Your task to perform on an android device: open app "McDonald's" (install if not already installed) Image 0: 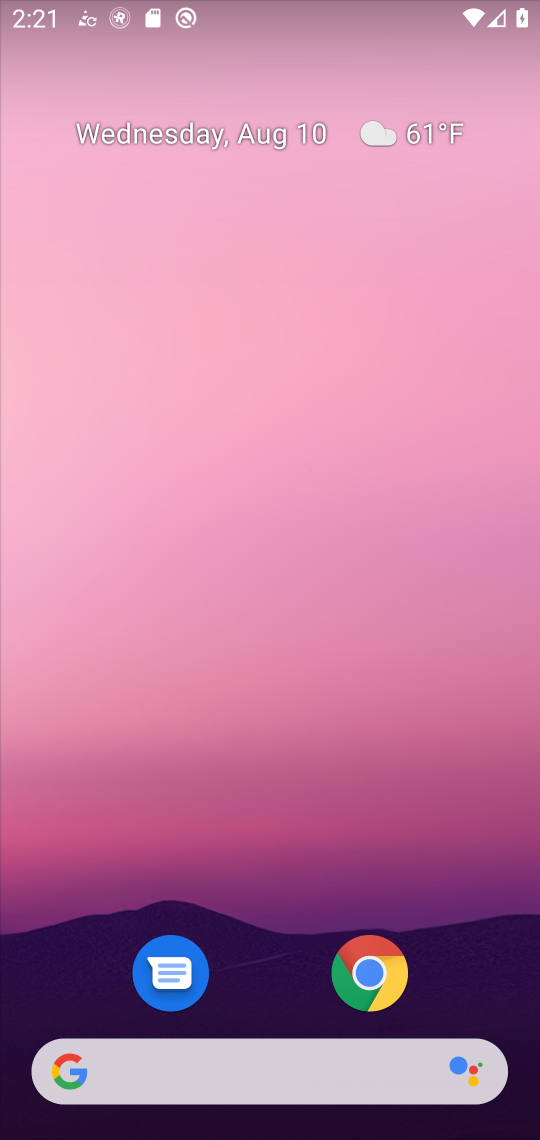
Step 0: drag from (301, 781) to (309, 389)
Your task to perform on an android device: open app "McDonald's" (install if not already installed) Image 1: 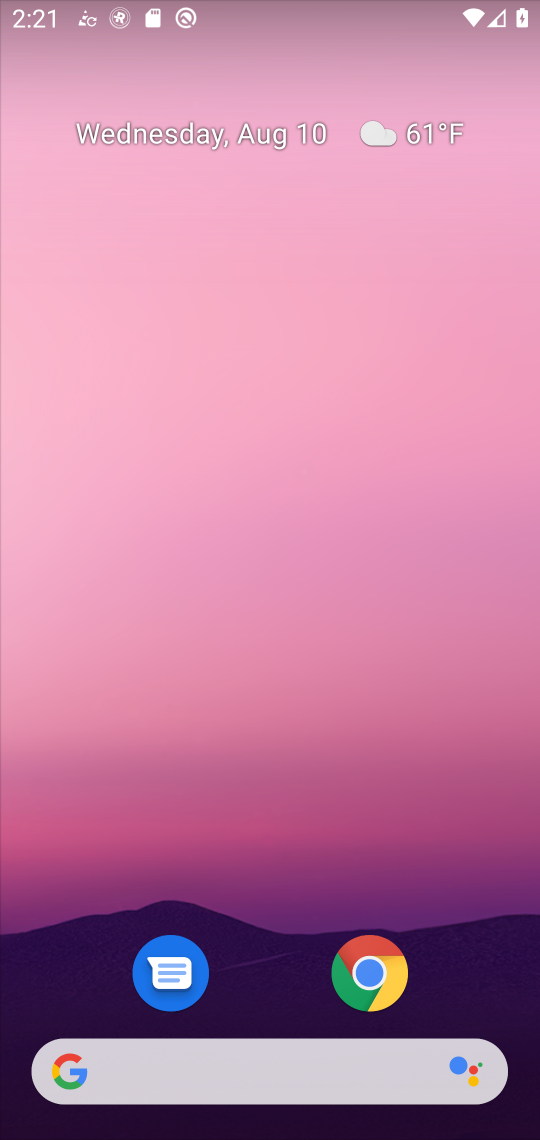
Step 1: drag from (271, 921) to (267, 232)
Your task to perform on an android device: open app "McDonald's" (install if not already installed) Image 2: 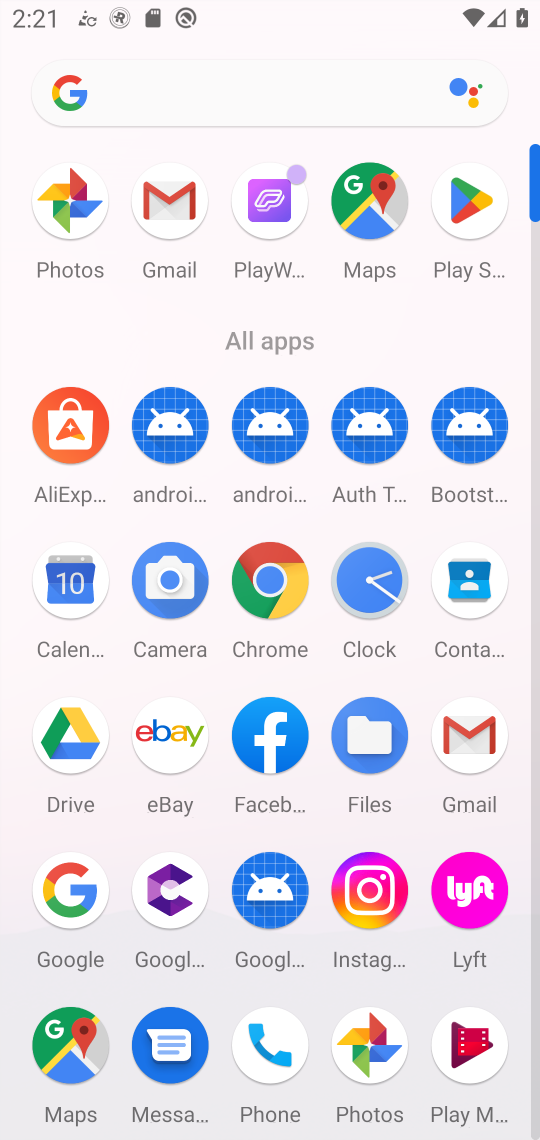
Step 2: click (485, 190)
Your task to perform on an android device: open app "McDonald's" (install if not already installed) Image 3: 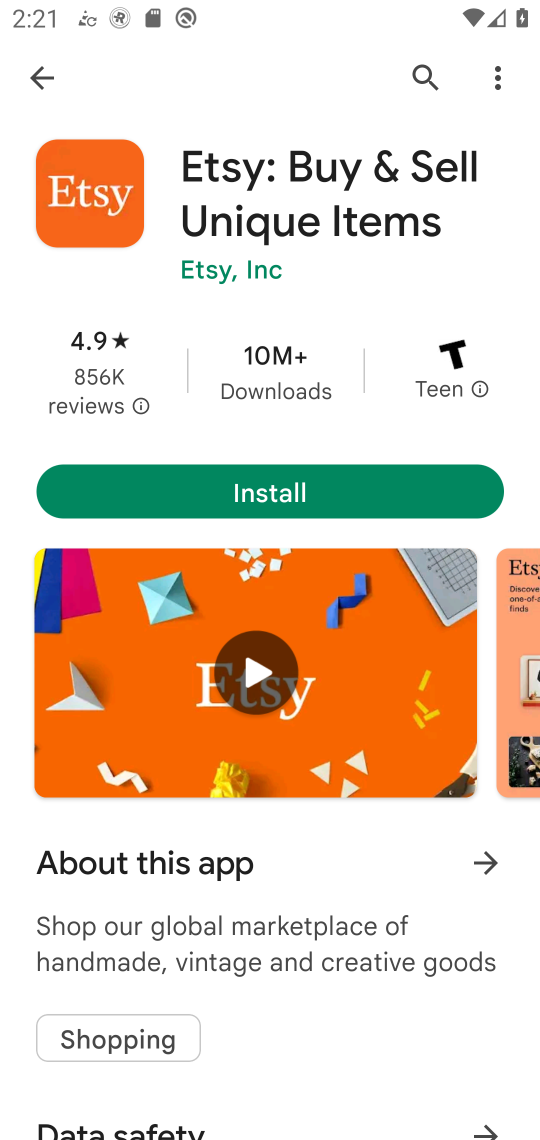
Step 3: click (28, 71)
Your task to perform on an android device: open app "McDonald's" (install if not already installed) Image 4: 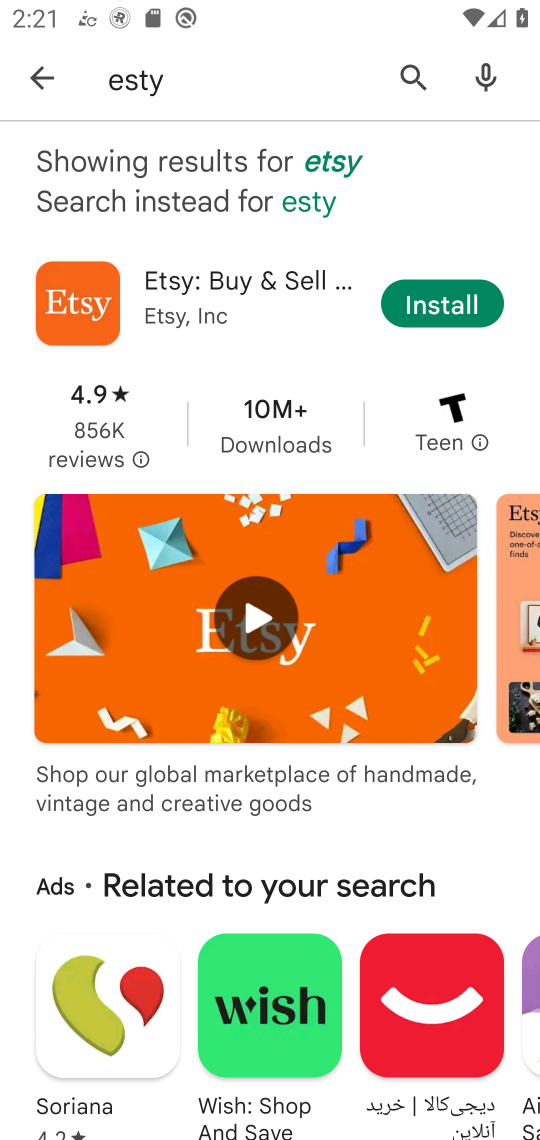
Step 4: click (29, 60)
Your task to perform on an android device: open app "McDonald's" (install if not already installed) Image 5: 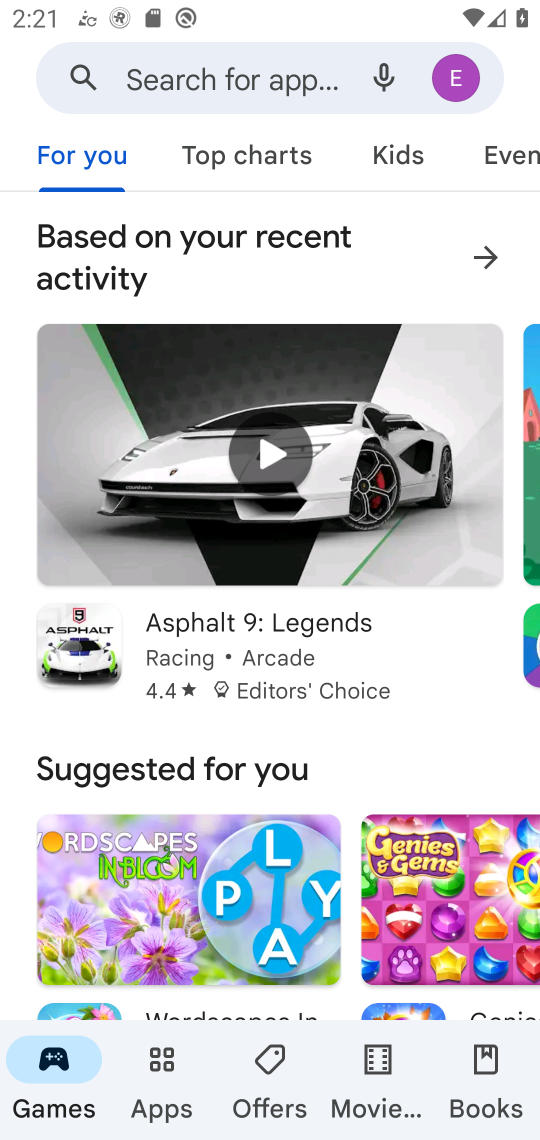
Step 5: click (189, 72)
Your task to perform on an android device: open app "McDonald's" (install if not already installed) Image 6: 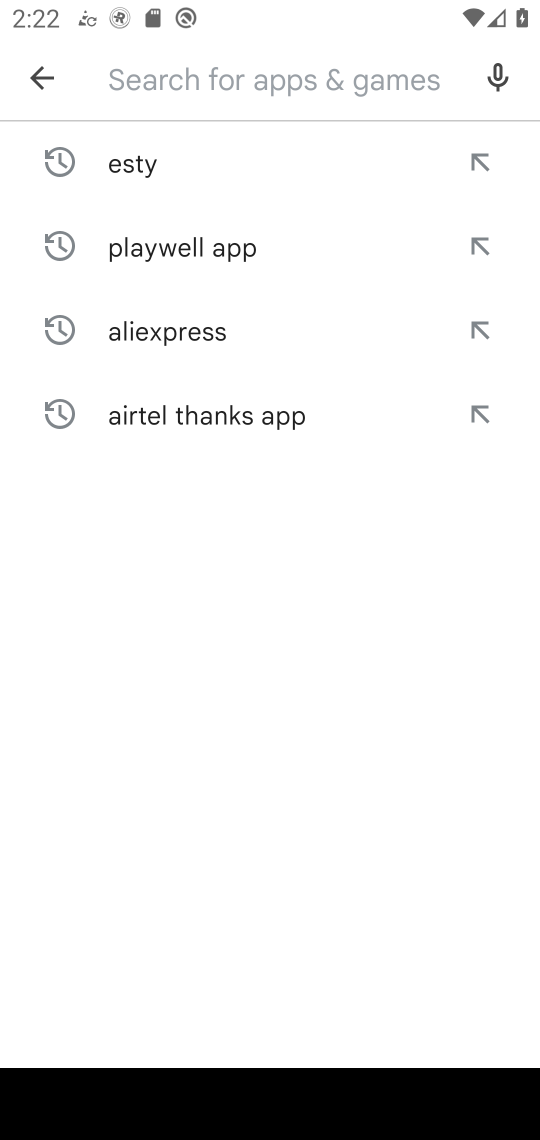
Step 6: type "mcdonald"
Your task to perform on an android device: open app "McDonald's" (install if not already installed) Image 7: 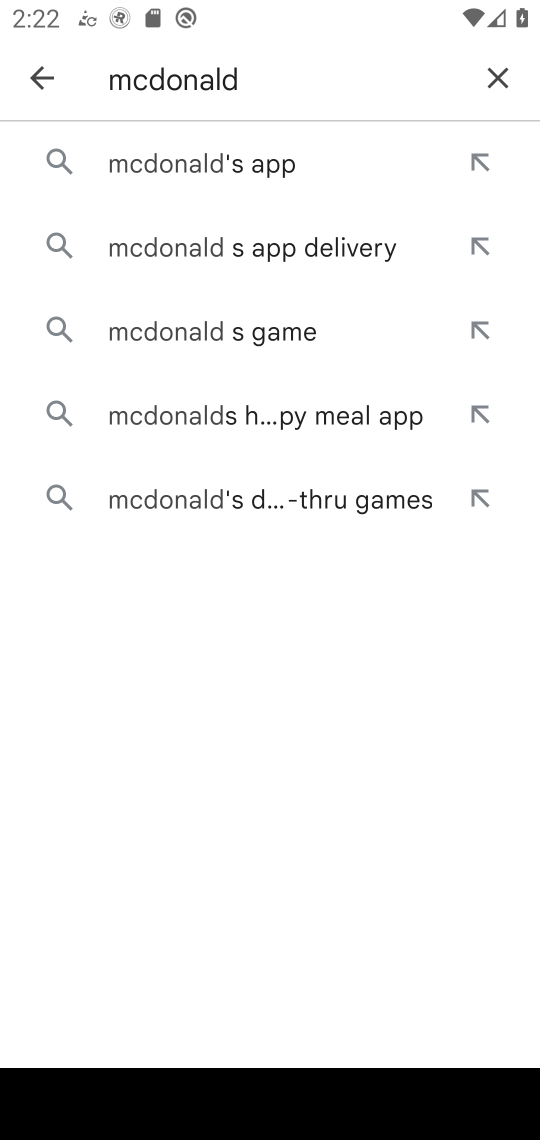
Step 7: click (174, 177)
Your task to perform on an android device: open app "McDonald's" (install if not already installed) Image 8: 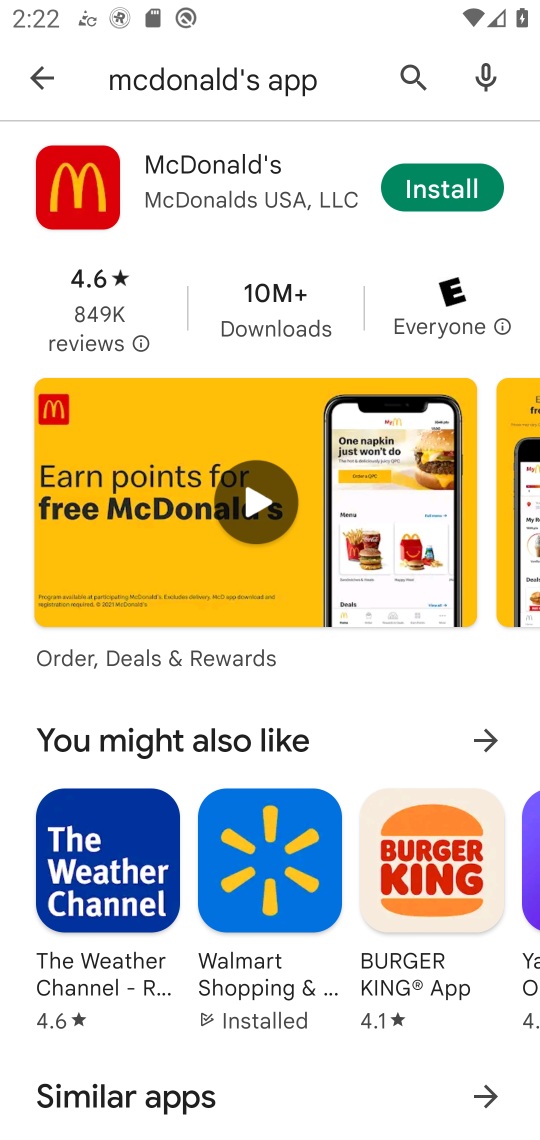
Step 8: click (476, 181)
Your task to perform on an android device: open app "McDonald's" (install if not already installed) Image 9: 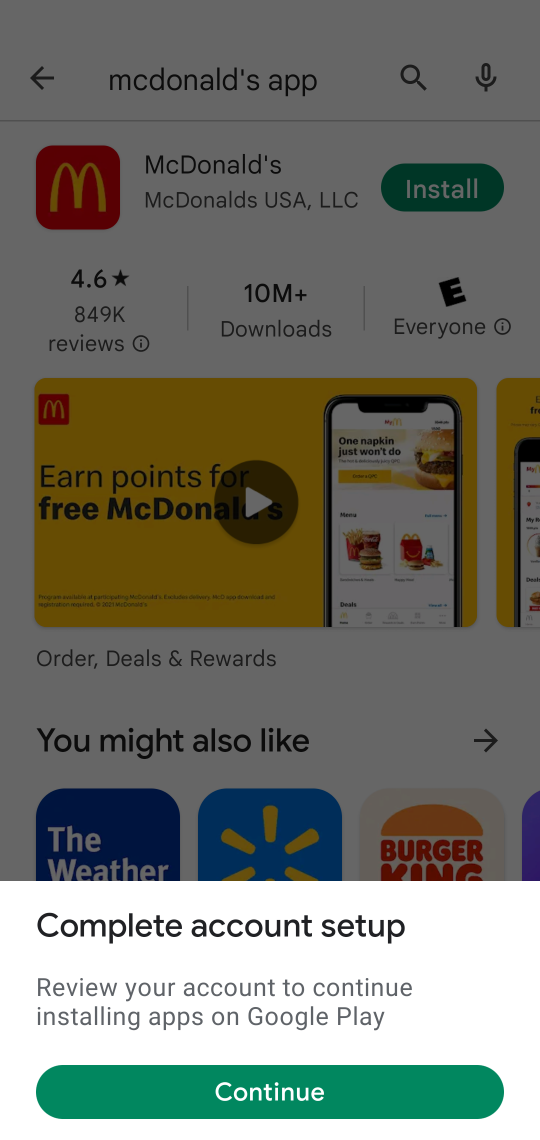
Step 9: click (218, 1066)
Your task to perform on an android device: open app "McDonald's" (install if not already installed) Image 10: 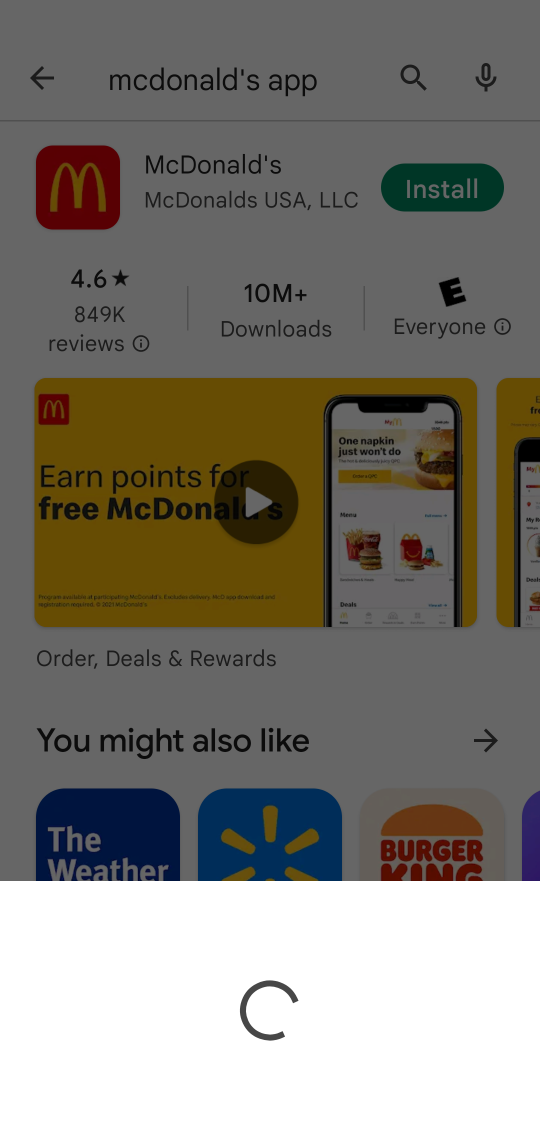
Step 10: task complete